Your task to perform on an android device: turn off notifications settings in the gmail app Image 0: 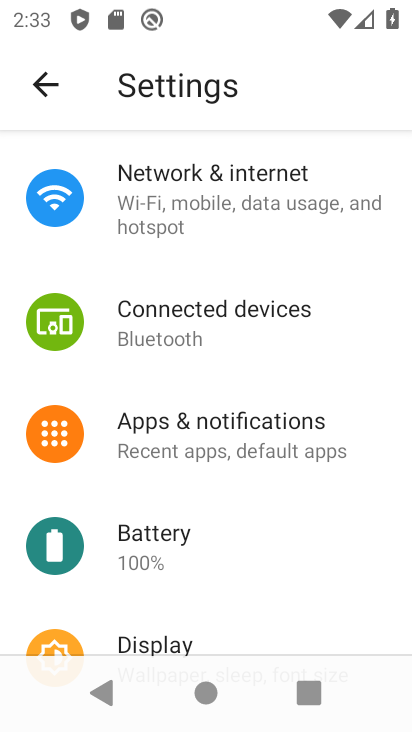
Step 0: press home button
Your task to perform on an android device: turn off notifications settings in the gmail app Image 1: 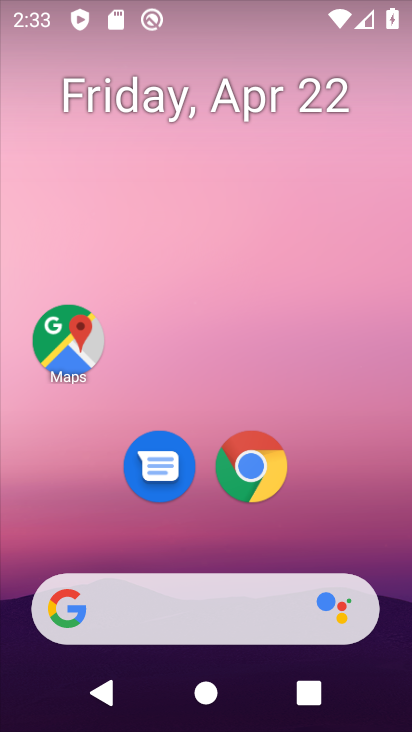
Step 1: drag from (241, 466) to (222, 154)
Your task to perform on an android device: turn off notifications settings in the gmail app Image 2: 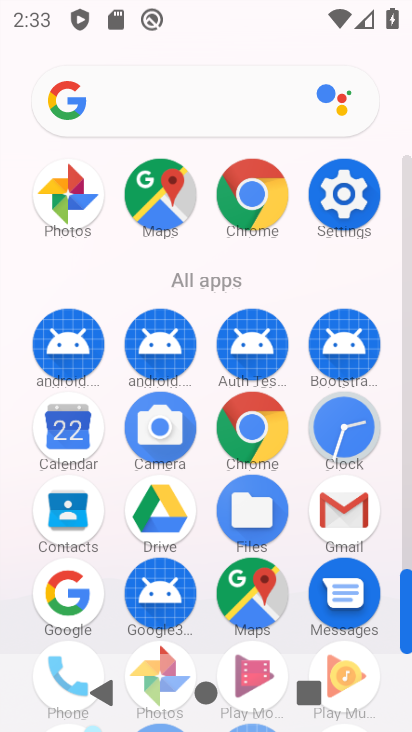
Step 2: click (354, 502)
Your task to perform on an android device: turn off notifications settings in the gmail app Image 3: 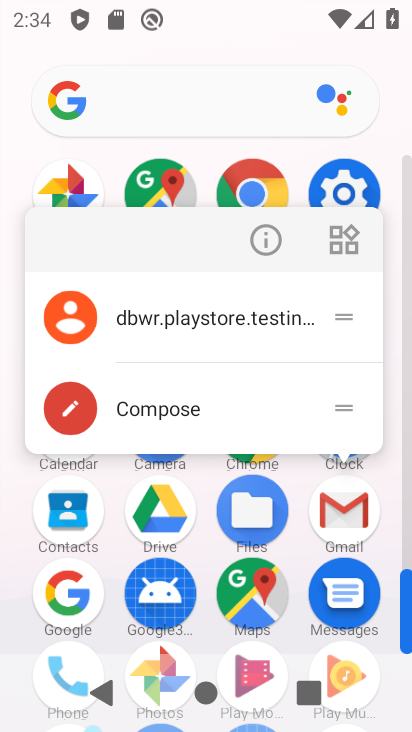
Step 3: click (275, 229)
Your task to perform on an android device: turn off notifications settings in the gmail app Image 4: 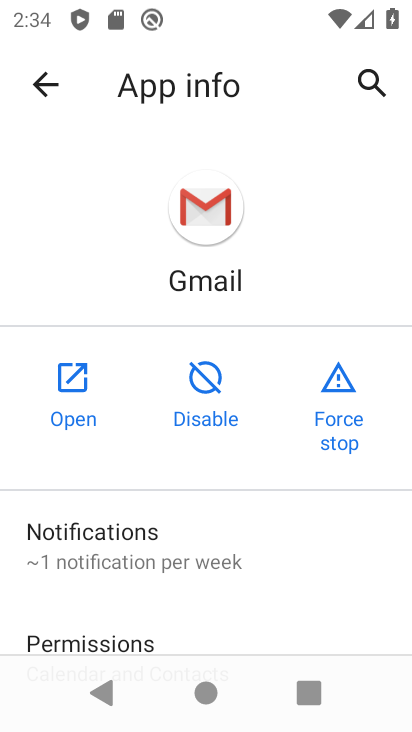
Step 4: click (162, 529)
Your task to perform on an android device: turn off notifications settings in the gmail app Image 5: 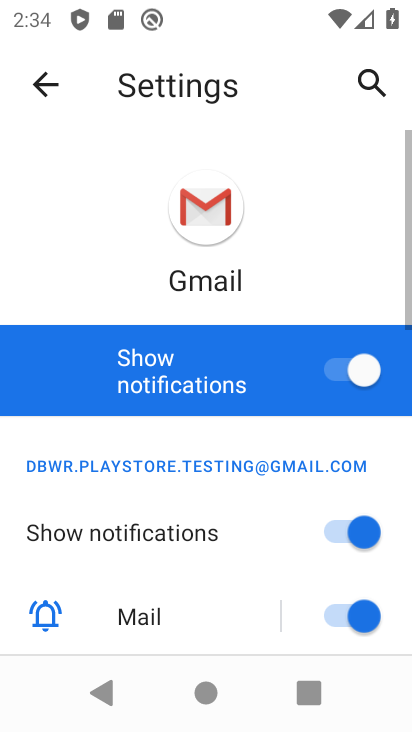
Step 5: click (357, 374)
Your task to perform on an android device: turn off notifications settings in the gmail app Image 6: 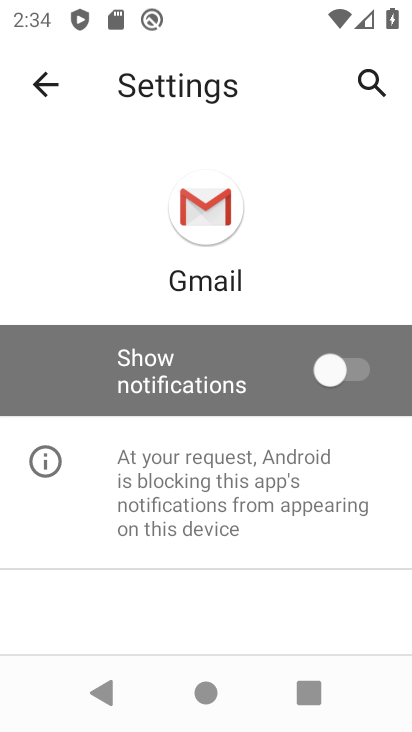
Step 6: task complete